Your task to perform on an android device: toggle notifications settings in the gmail app Image 0: 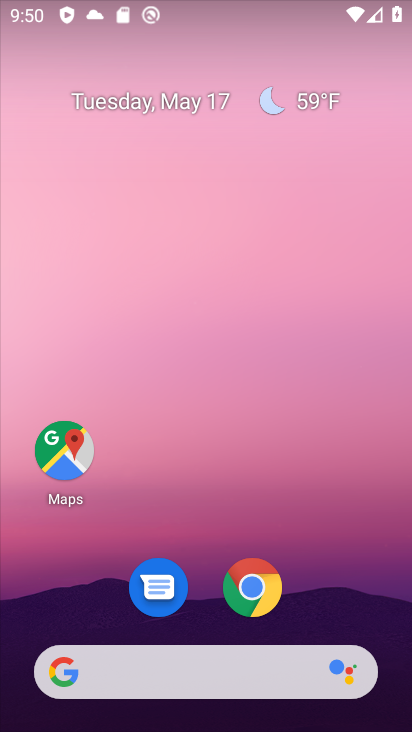
Step 0: drag from (330, 552) to (280, 327)
Your task to perform on an android device: toggle notifications settings in the gmail app Image 1: 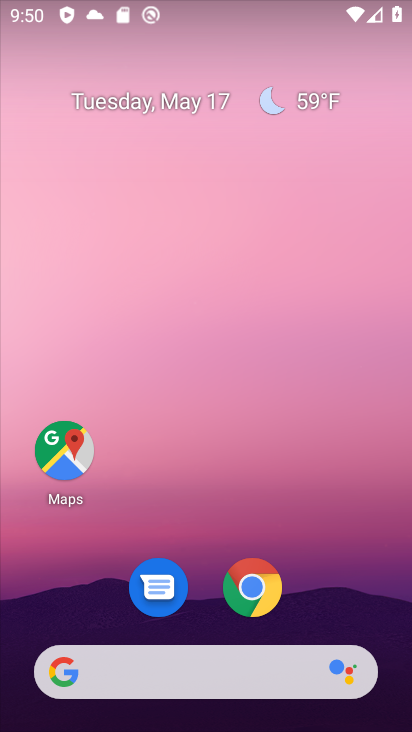
Step 1: click (339, 603)
Your task to perform on an android device: toggle notifications settings in the gmail app Image 2: 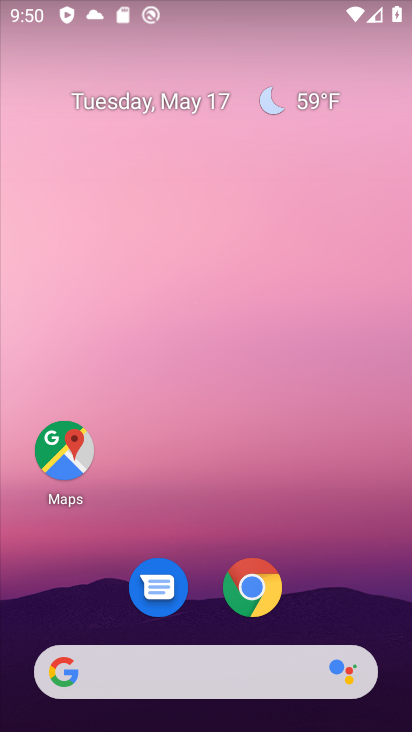
Step 2: drag from (339, 603) to (304, 186)
Your task to perform on an android device: toggle notifications settings in the gmail app Image 3: 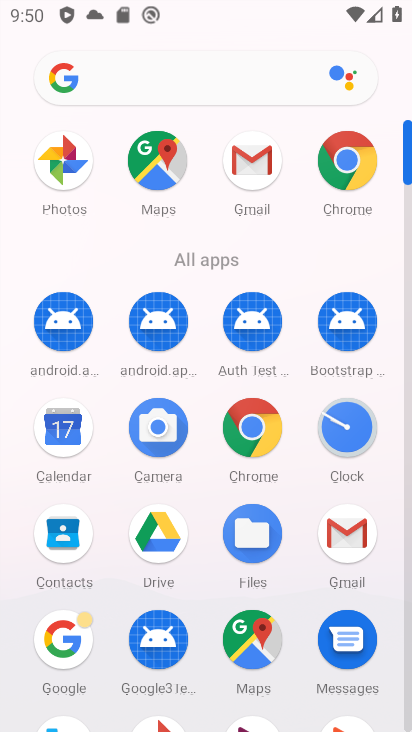
Step 3: click (256, 163)
Your task to perform on an android device: toggle notifications settings in the gmail app Image 4: 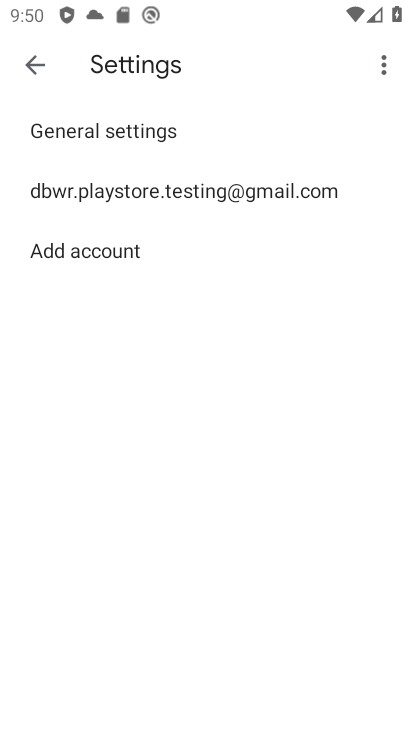
Step 4: click (133, 132)
Your task to perform on an android device: toggle notifications settings in the gmail app Image 5: 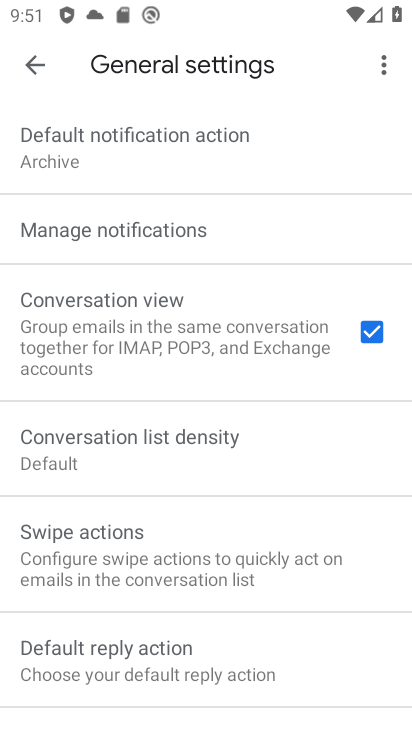
Step 5: drag from (170, 551) to (195, 252)
Your task to perform on an android device: toggle notifications settings in the gmail app Image 6: 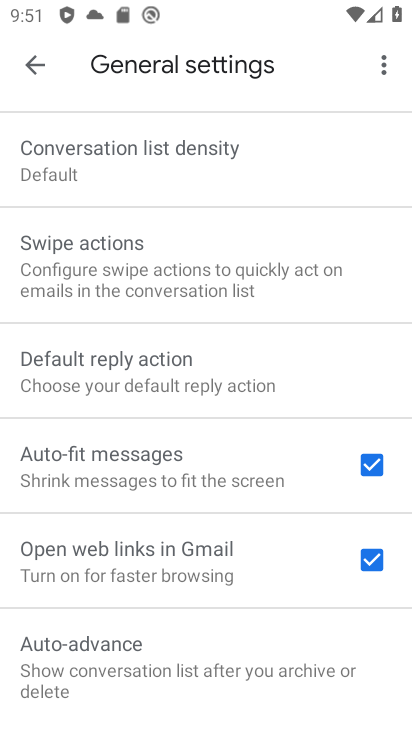
Step 6: drag from (213, 205) to (258, 597)
Your task to perform on an android device: toggle notifications settings in the gmail app Image 7: 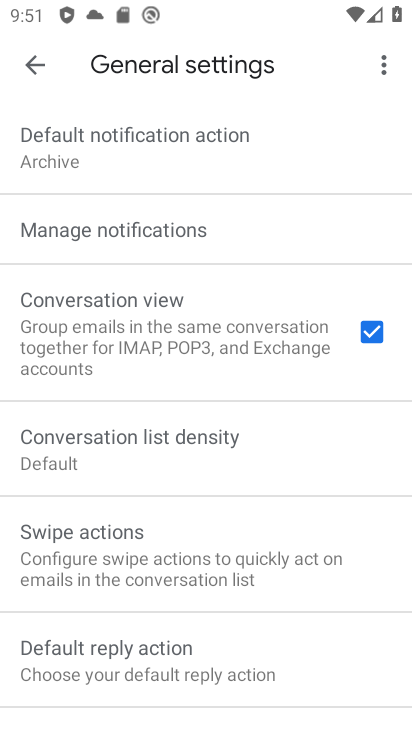
Step 7: click (169, 225)
Your task to perform on an android device: toggle notifications settings in the gmail app Image 8: 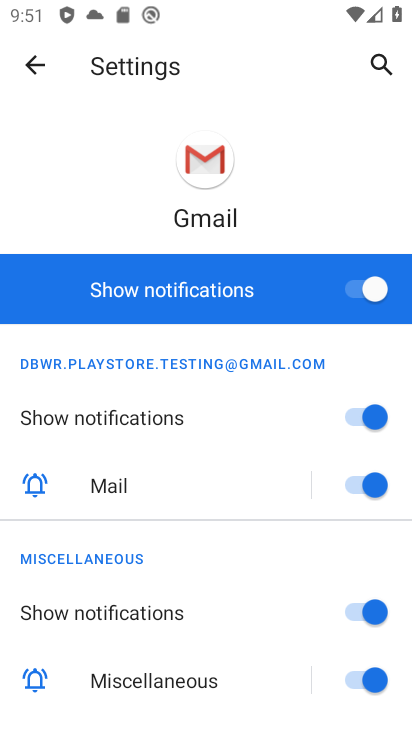
Step 8: click (358, 291)
Your task to perform on an android device: toggle notifications settings in the gmail app Image 9: 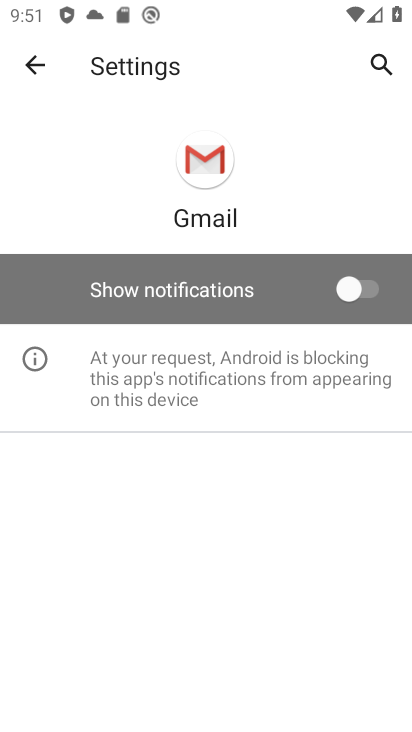
Step 9: task complete